Your task to perform on an android device: check the backup settings in the google photos Image 0: 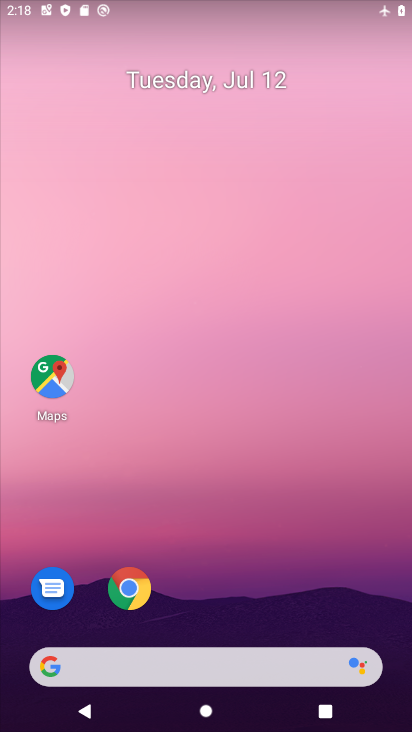
Step 0: drag from (199, 666) to (204, 6)
Your task to perform on an android device: check the backup settings in the google photos Image 1: 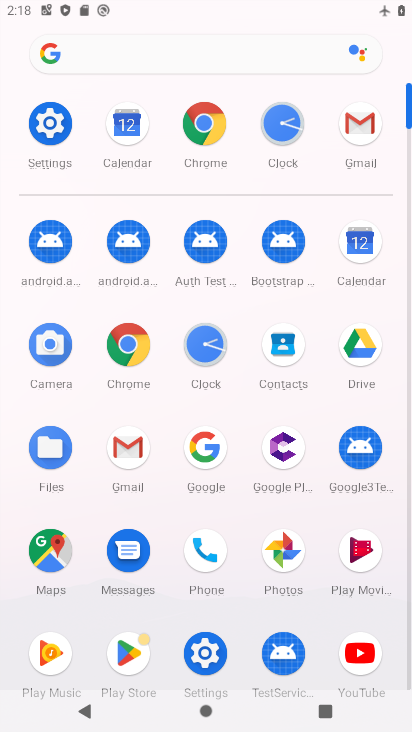
Step 1: click (278, 539)
Your task to perform on an android device: check the backup settings in the google photos Image 2: 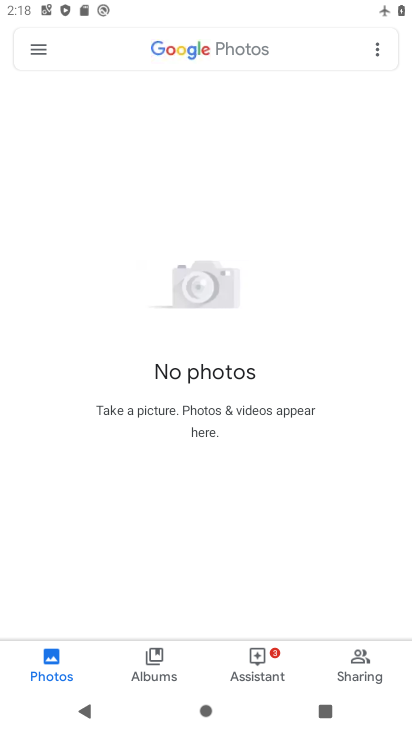
Step 2: click (41, 39)
Your task to perform on an android device: check the backup settings in the google photos Image 3: 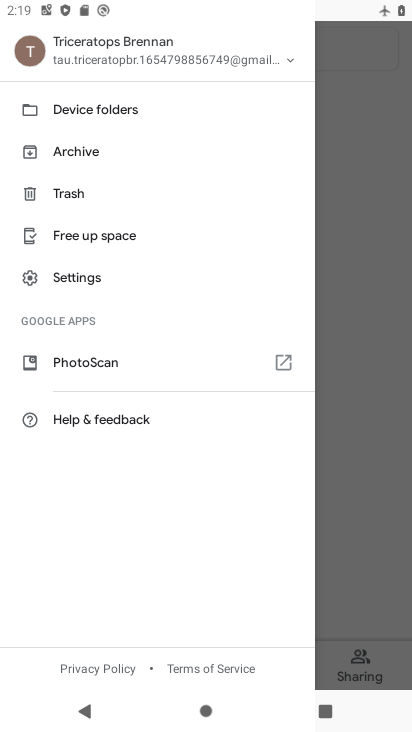
Step 3: click (69, 281)
Your task to perform on an android device: check the backup settings in the google photos Image 4: 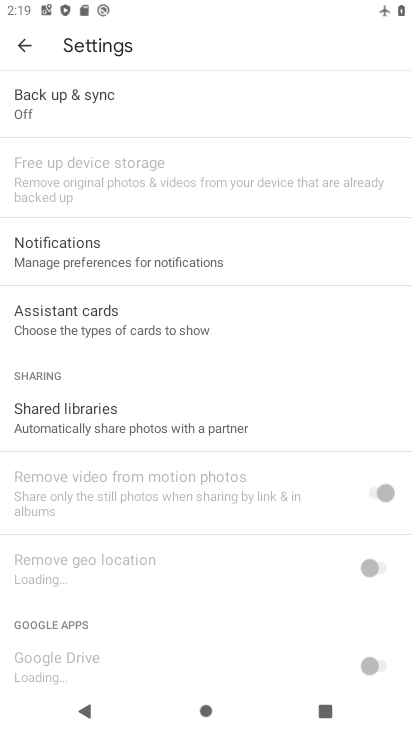
Step 4: click (77, 107)
Your task to perform on an android device: check the backup settings in the google photos Image 5: 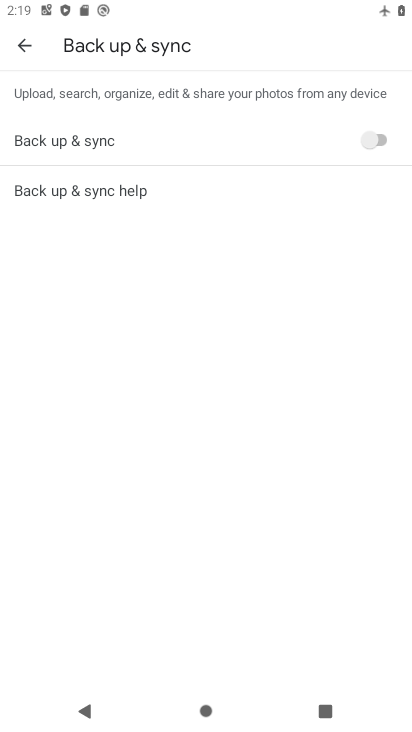
Step 5: task complete